Your task to perform on an android device: Add razer blade to the cart on ebay Image 0: 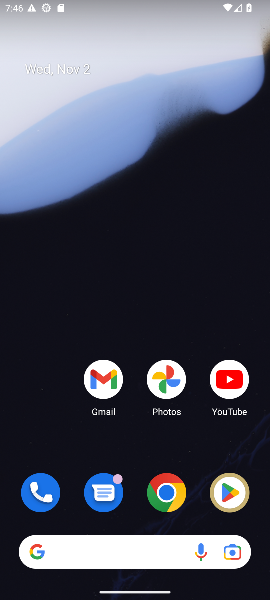
Step 0: press home button
Your task to perform on an android device: Add razer blade to the cart on ebay Image 1: 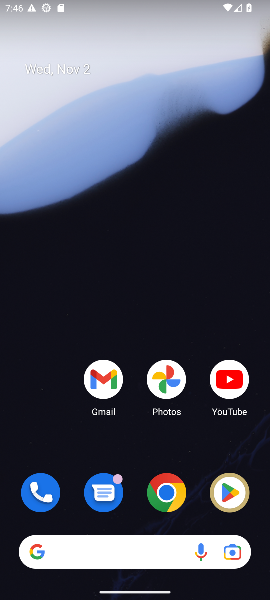
Step 1: click (170, 497)
Your task to perform on an android device: Add razer blade to the cart on ebay Image 2: 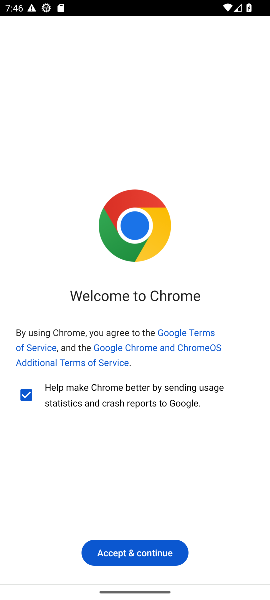
Step 2: click (132, 552)
Your task to perform on an android device: Add razer blade to the cart on ebay Image 3: 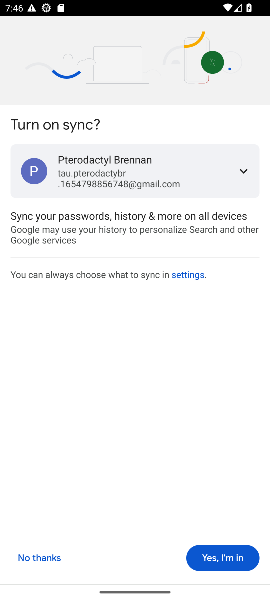
Step 3: click (236, 552)
Your task to perform on an android device: Add razer blade to the cart on ebay Image 4: 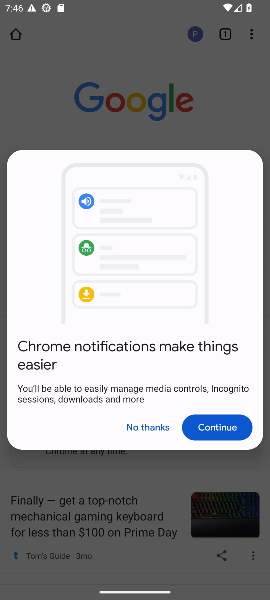
Step 4: click (142, 426)
Your task to perform on an android device: Add razer blade to the cart on ebay Image 5: 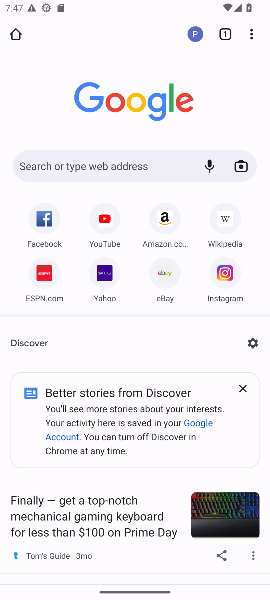
Step 5: click (128, 157)
Your task to perform on an android device: Add razer blade to the cart on ebay Image 6: 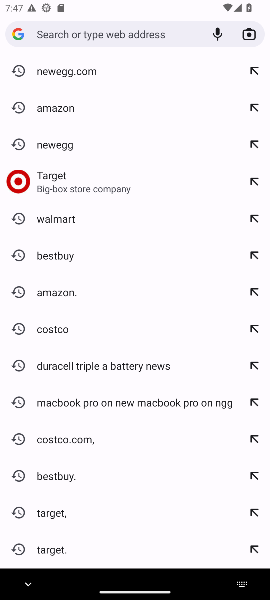
Step 6: type "ebay"
Your task to perform on an android device: Add razer blade to the cart on ebay Image 7: 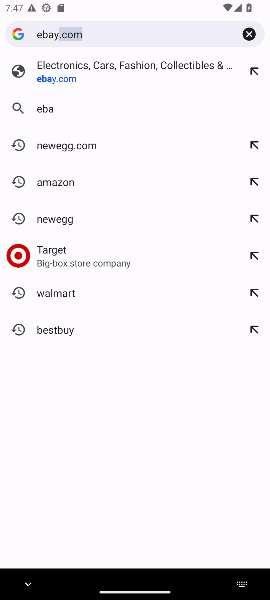
Step 7: type ""
Your task to perform on an android device: Add razer blade to the cart on ebay Image 8: 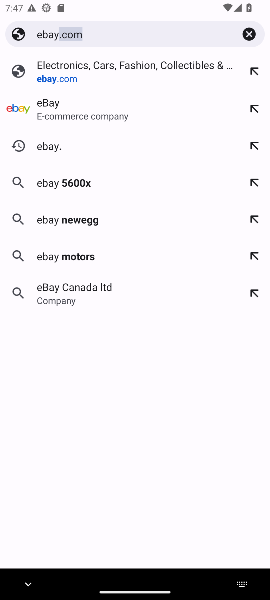
Step 8: click (81, 77)
Your task to perform on an android device: Add razer blade to the cart on ebay Image 9: 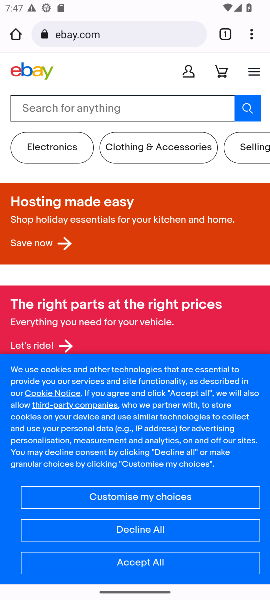
Step 9: click (96, 106)
Your task to perform on an android device: Add razer blade to the cart on ebay Image 10: 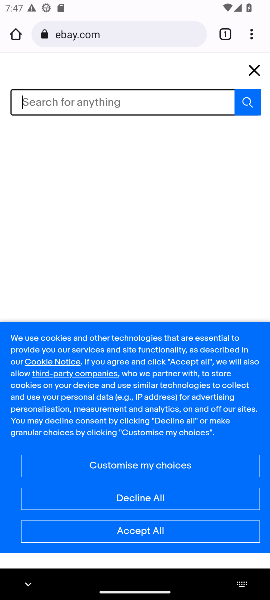
Step 10: type "razer blade"
Your task to perform on an android device: Add razer blade to the cart on ebay Image 11: 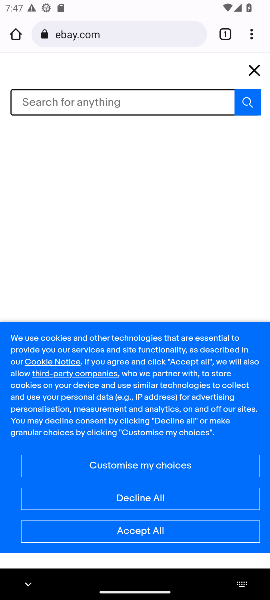
Step 11: type ""
Your task to perform on an android device: Add razer blade to the cart on ebay Image 12: 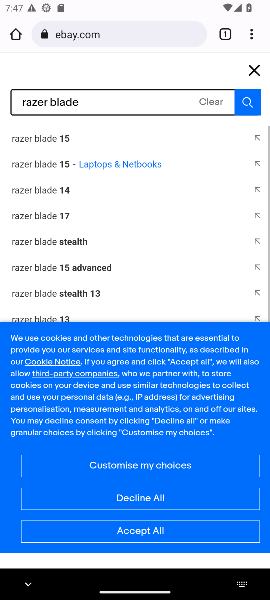
Step 12: click (53, 133)
Your task to perform on an android device: Add razer blade to the cart on ebay Image 13: 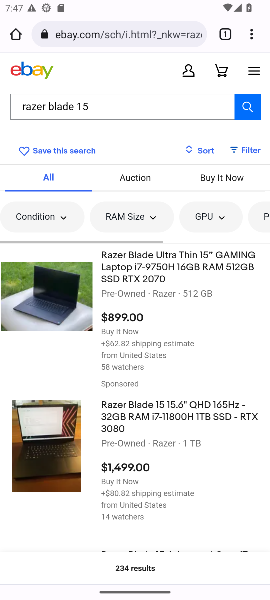
Step 13: click (141, 264)
Your task to perform on an android device: Add razer blade to the cart on ebay Image 14: 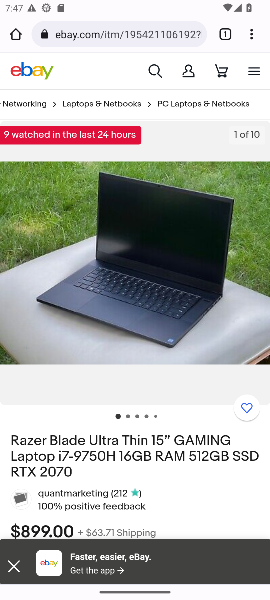
Step 14: drag from (126, 482) to (109, 240)
Your task to perform on an android device: Add razer blade to the cart on ebay Image 15: 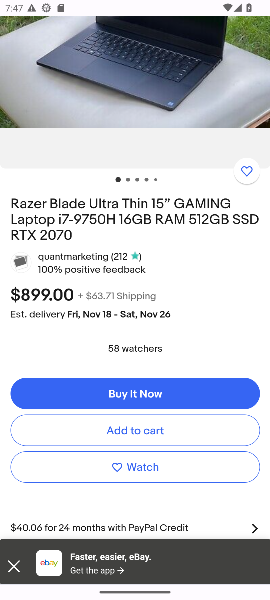
Step 15: drag from (108, 328) to (111, 184)
Your task to perform on an android device: Add razer blade to the cart on ebay Image 16: 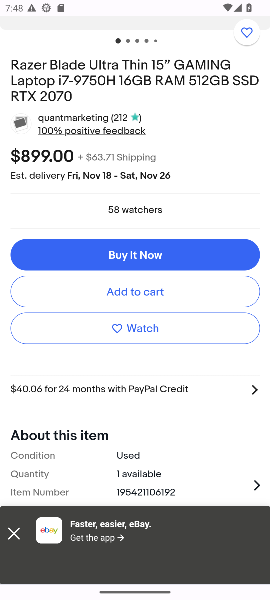
Step 16: drag from (136, 410) to (120, 247)
Your task to perform on an android device: Add razer blade to the cart on ebay Image 17: 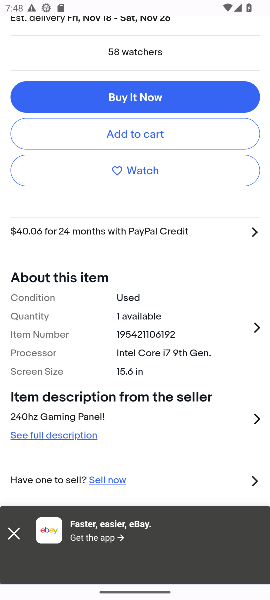
Step 17: drag from (118, 347) to (126, 203)
Your task to perform on an android device: Add razer blade to the cart on ebay Image 18: 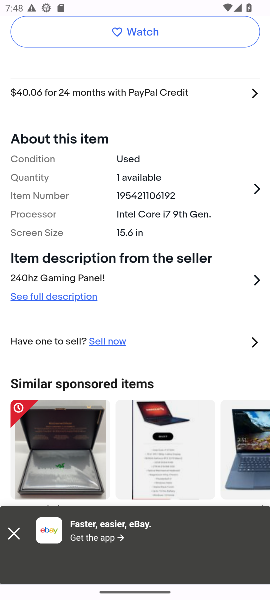
Step 18: drag from (89, 329) to (84, 428)
Your task to perform on an android device: Add razer blade to the cart on ebay Image 19: 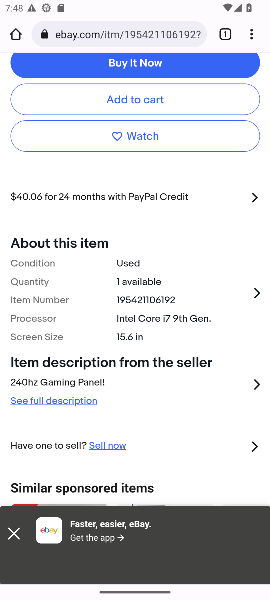
Step 19: drag from (147, 276) to (139, 384)
Your task to perform on an android device: Add razer blade to the cart on ebay Image 20: 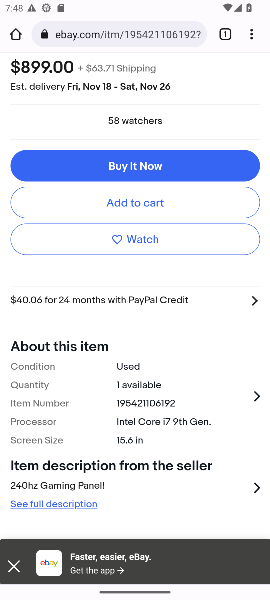
Step 20: drag from (142, 334) to (135, 419)
Your task to perform on an android device: Add razer blade to the cart on ebay Image 21: 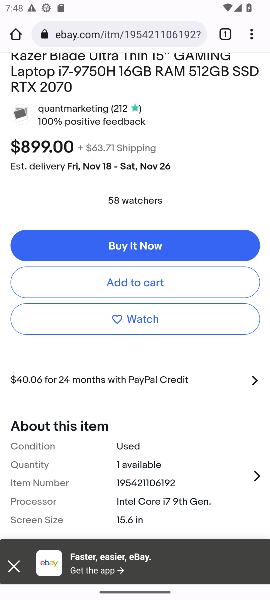
Step 21: click (128, 282)
Your task to perform on an android device: Add razer blade to the cart on ebay Image 22: 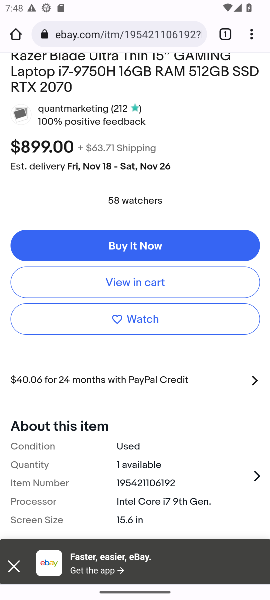
Step 22: click (128, 282)
Your task to perform on an android device: Add razer blade to the cart on ebay Image 23: 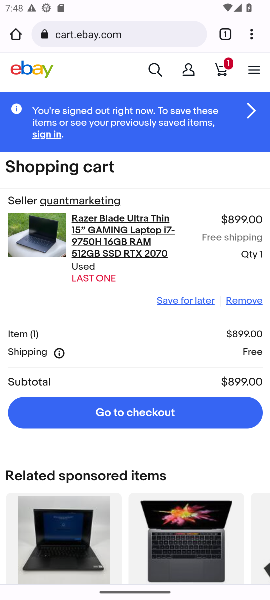
Step 23: drag from (122, 483) to (135, 240)
Your task to perform on an android device: Add razer blade to the cart on ebay Image 24: 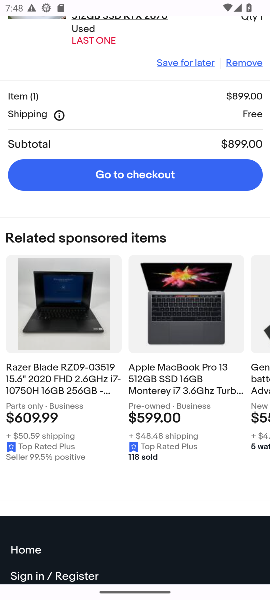
Step 24: drag from (124, 409) to (119, 499)
Your task to perform on an android device: Add razer blade to the cart on ebay Image 25: 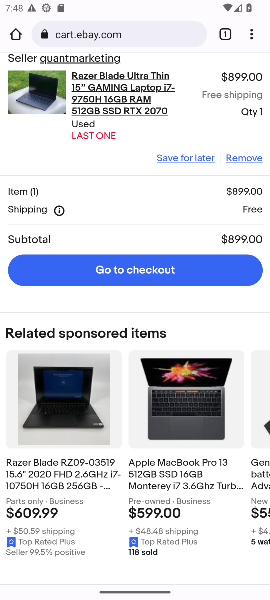
Step 25: drag from (176, 288) to (178, 496)
Your task to perform on an android device: Add razer blade to the cart on ebay Image 26: 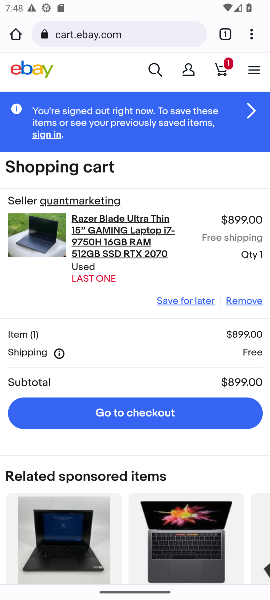
Step 26: click (153, 410)
Your task to perform on an android device: Add razer blade to the cart on ebay Image 27: 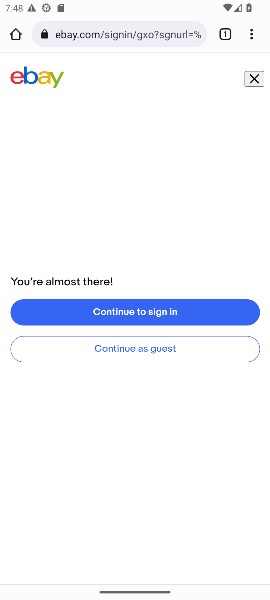
Step 27: task complete